Your task to perform on an android device: turn off javascript in the chrome app Image 0: 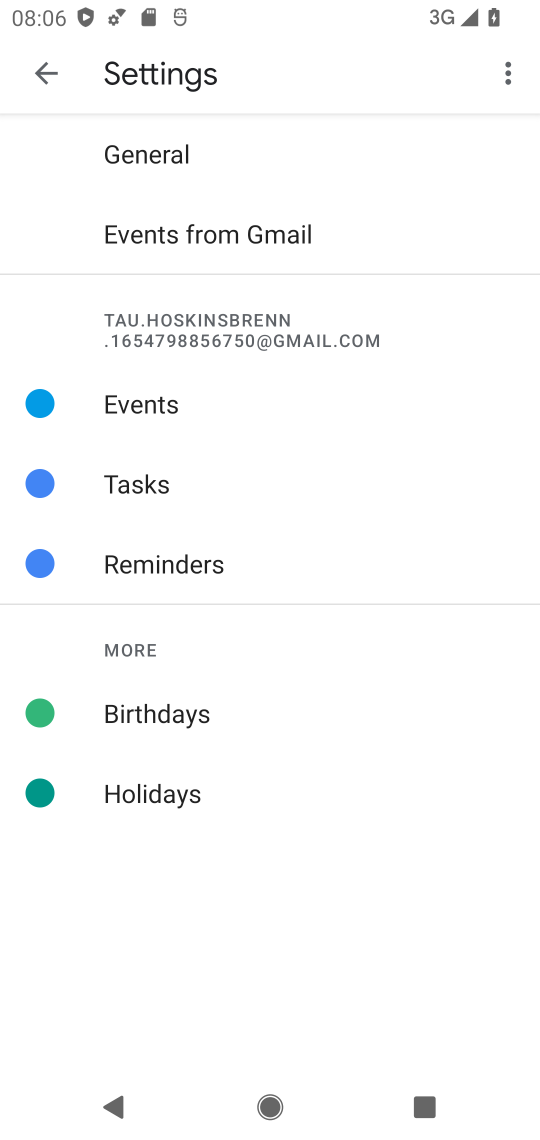
Step 0: press home button
Your task to perform on an android device: turn off javascript in the chrome app Image 1: 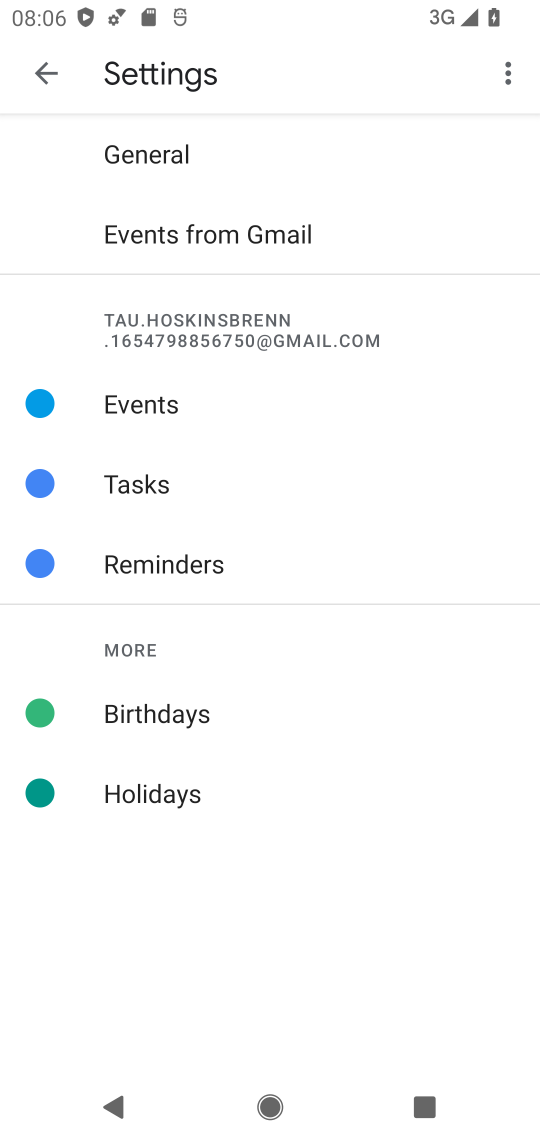
Step 1: press home button
Your task to perform on an android device: turn off javascript in the chrome app Image 2: 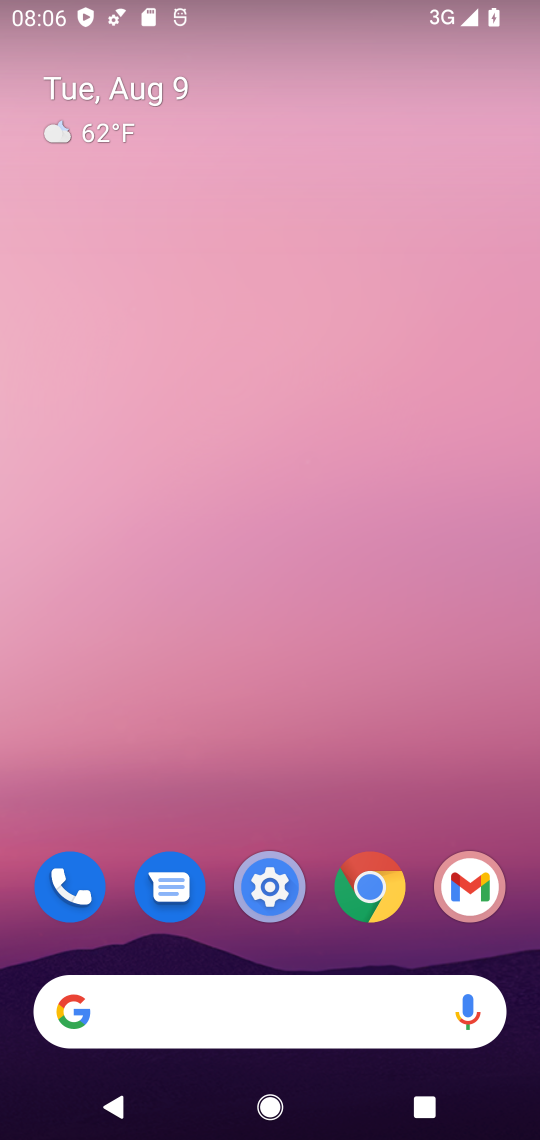
Step 2: click (379, 895)
Your task to perform on an android device: turn off javascript in the chrome app Image 3: 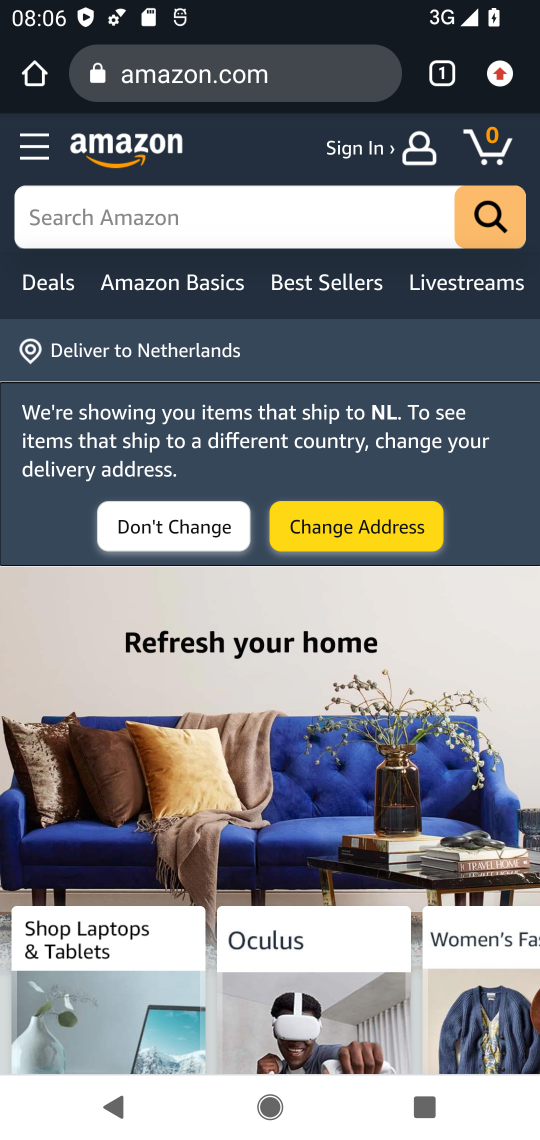
Step 3: click (495, 84)
Your task to perform on an android device: turn off javascript in the chrome app Image 4: 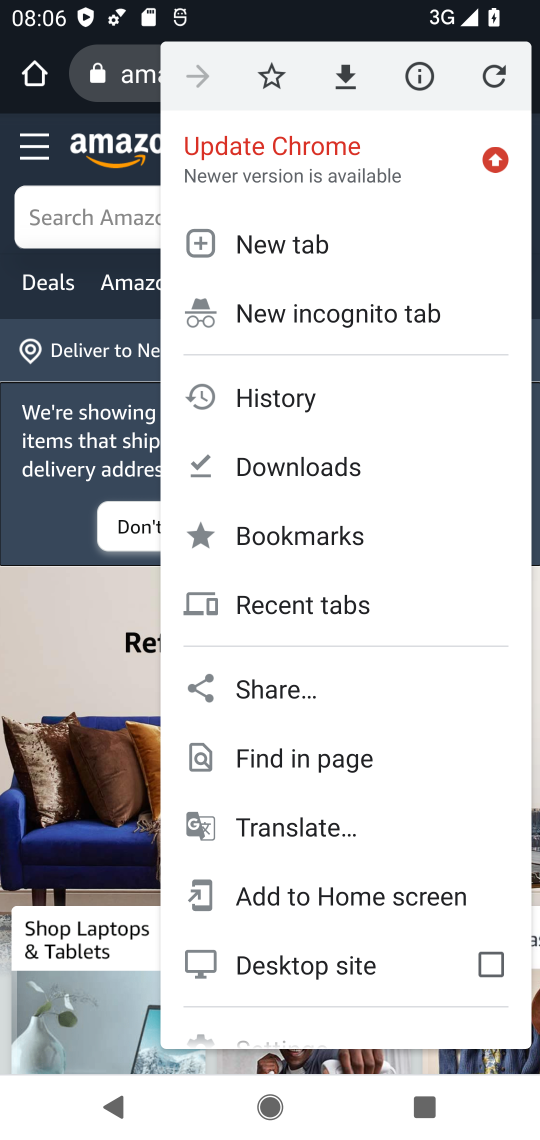
Step 4: drag from (369, 810) to (390, 163)
Your task to perform on an android device: turn off javascript in the chrome app Image 5: 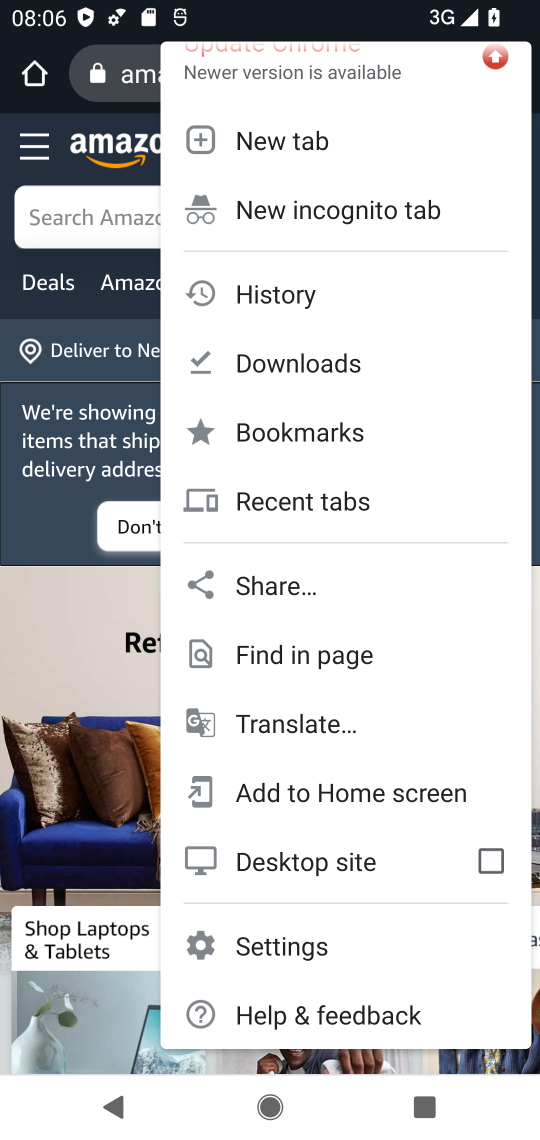
Step 5: click (296, 941)
Your task to perform on an android device: turn off javascript in the chrome app Image 6: 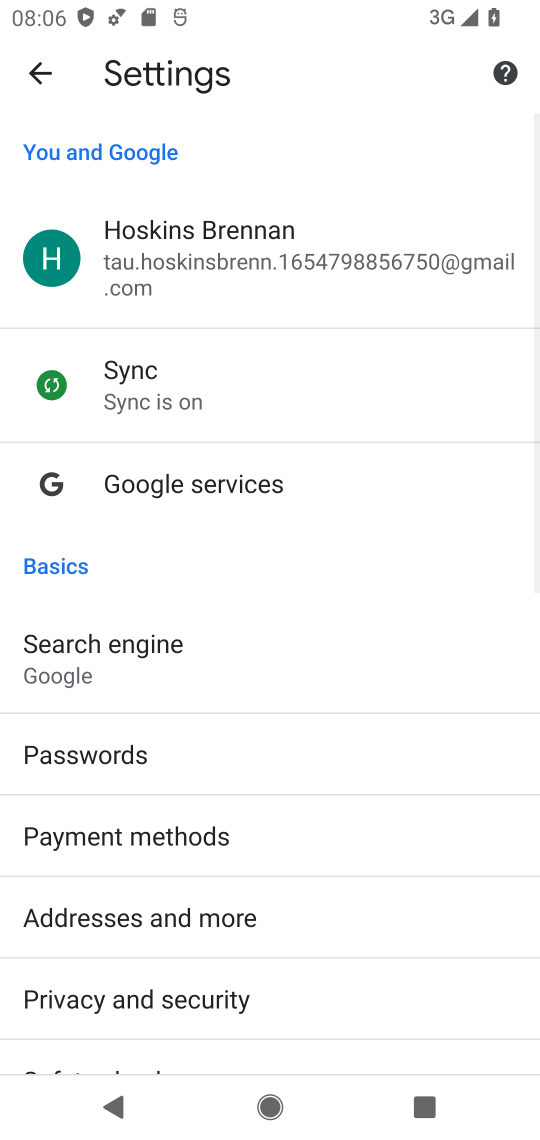
Step 6: drag from (323, 877) to (310, 83)
Your task to perform on an android device: turn off javascript in the chrome app Image 7: 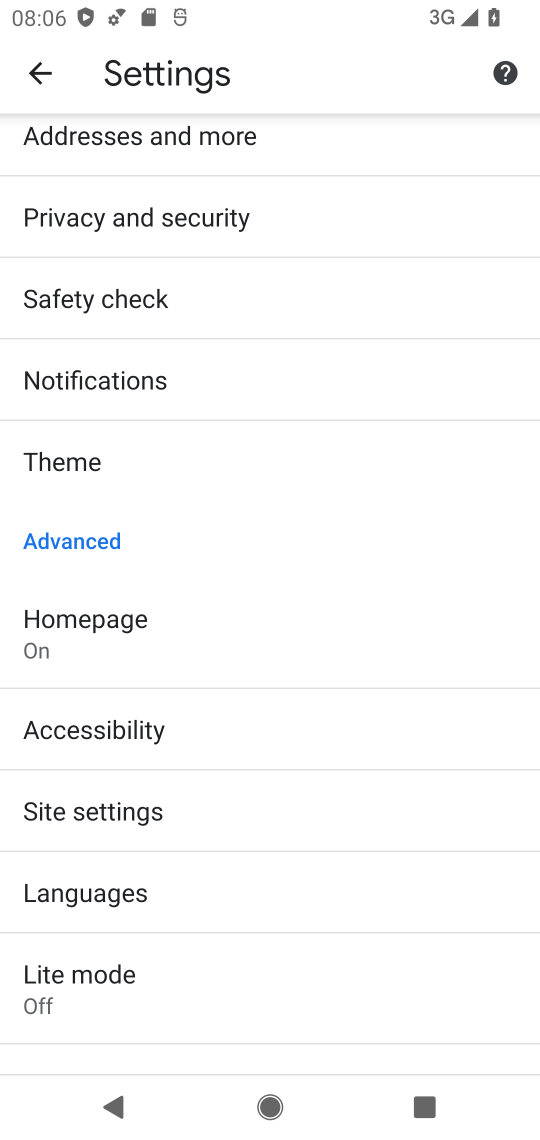
Step 7: click (195, 814)
Your task to perform on an android device: turn off javascript in the chrome app Image 8: 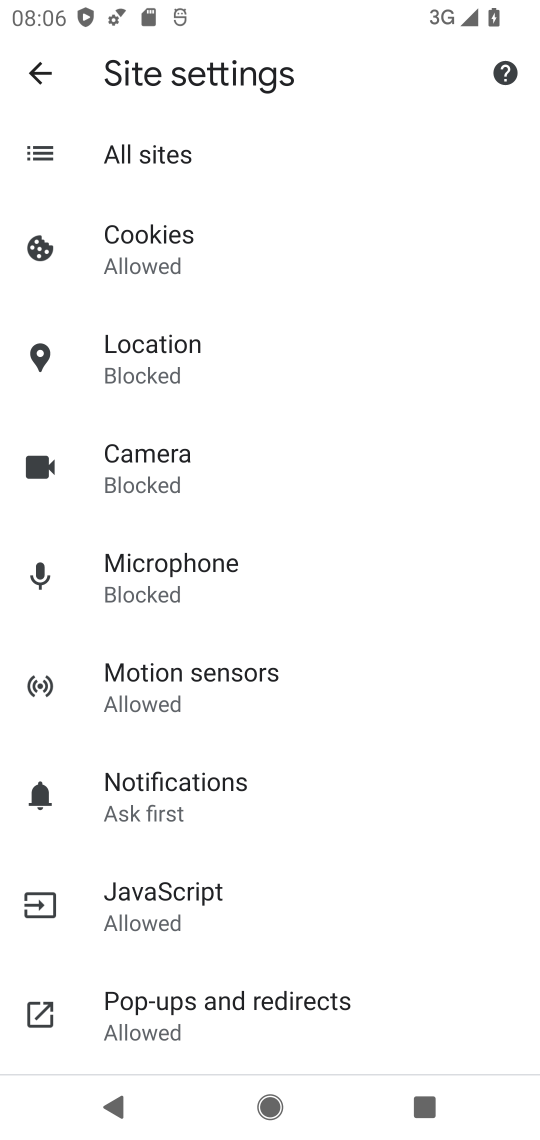
Step 8: click (220, 892)
Your task to perform on an android device: turn off javascript in the chrome app Image 9: 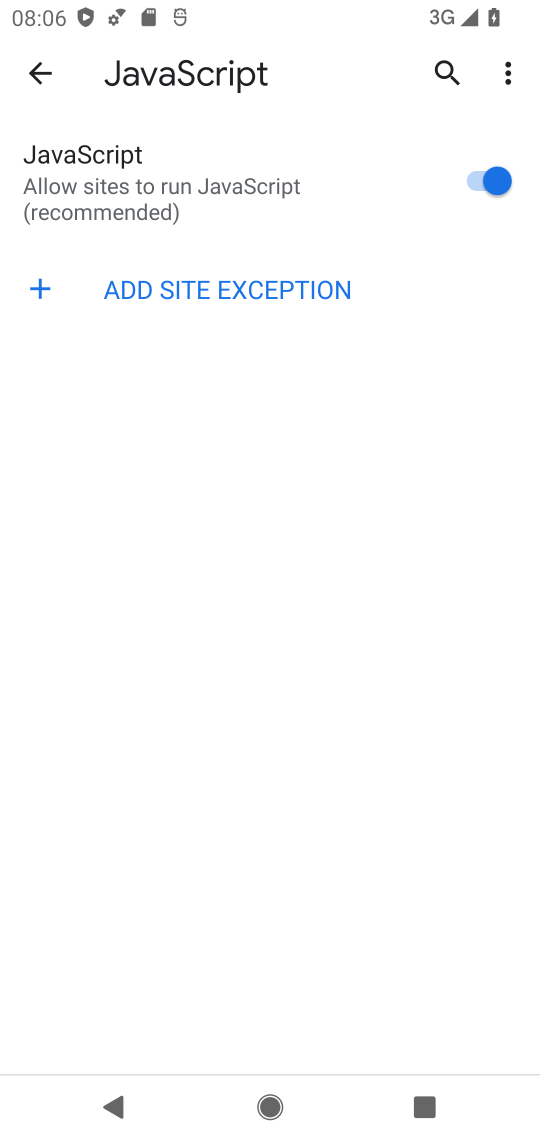
Step 9: click (498, 163)
Your task to perform on an android device: turn off javascript in the chrome app Image 10: 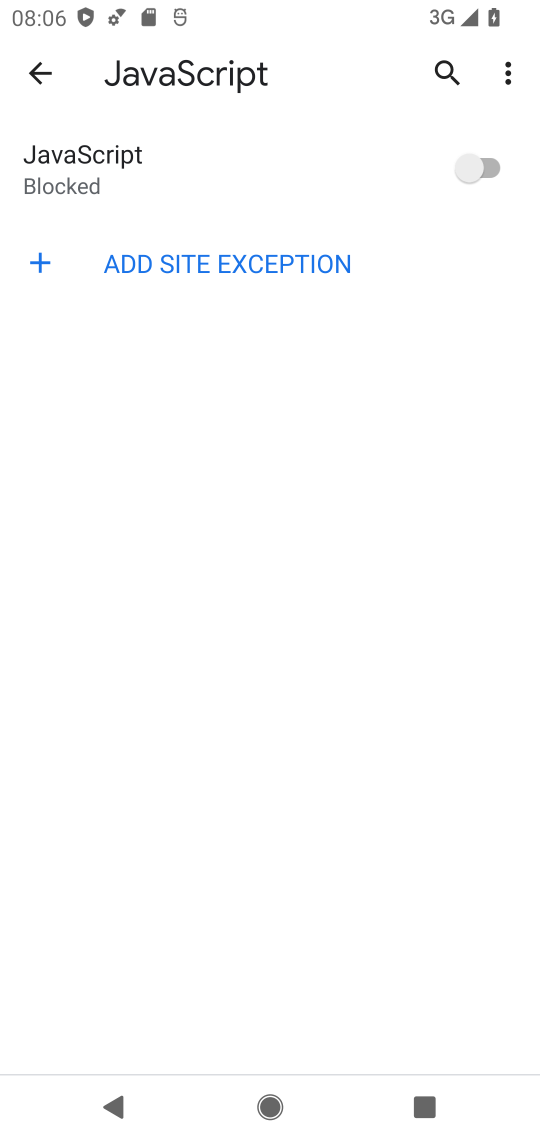
Step 10: task complete